Your task to perform on an android device: turn notification dots on Image 0: 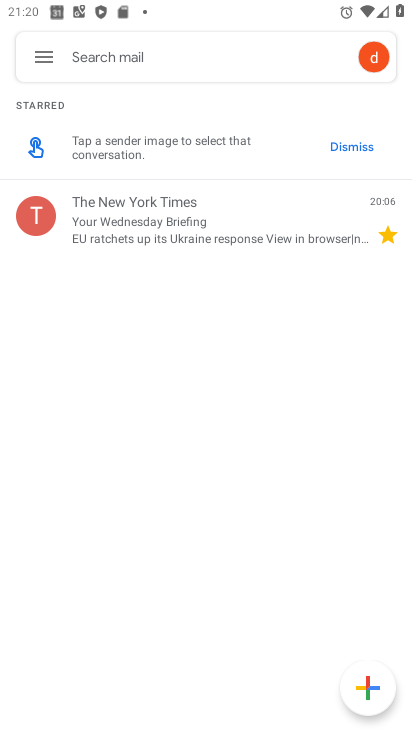
Step 0: press home button
Your task to perform on an android device: turn notification dots on Image 1: 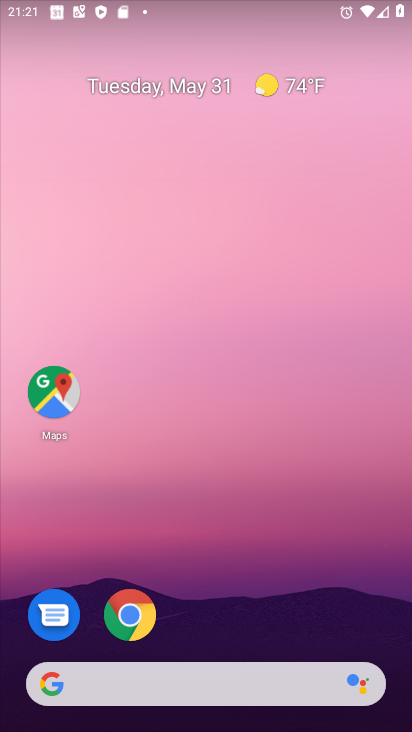
Step 1: drag from (200, 642) to (200, 229)
Your task to perform on an android device: turn notification dots on Image 2: 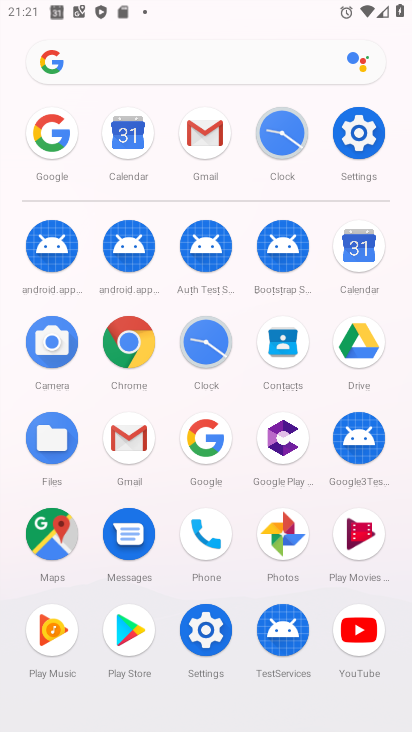
Step 2: click (351, 133)
Your task to perform on an android device: turn notification dots on Image 3: 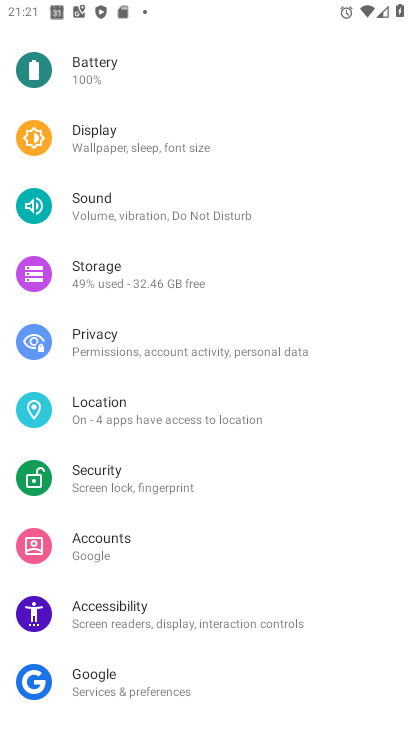
Step 3: drag from (154, 208) to (168, 595)
Your task to perform on an android device: turn notification dots on Image 4: 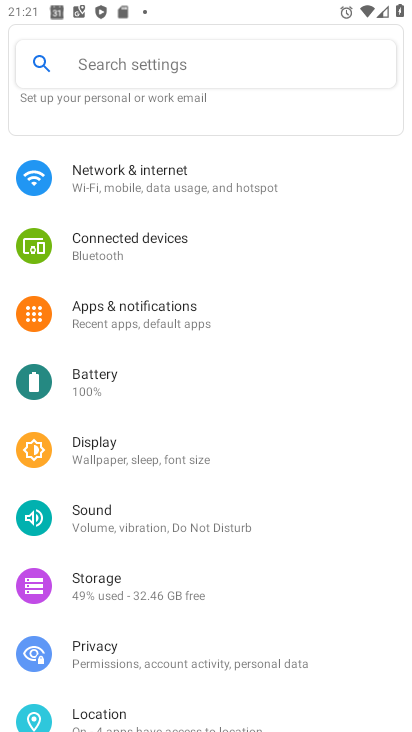
Step 4: drag from (173, 204) to (203, 457)
Your task to perform on an android device: turn notification dots on Image 5: 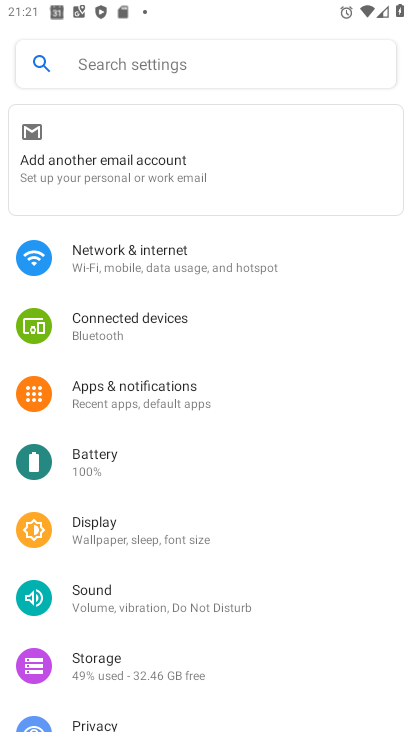
Step 5: click (165, 404)
Your task to perform on an android device: turn notification dots on Image 6: 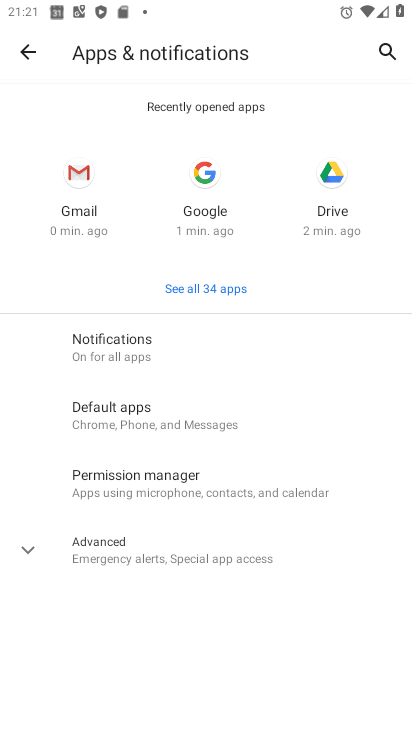
Step 6: click (157, 355)
Your task to perform on an android device: turn notification dots on Image 7: 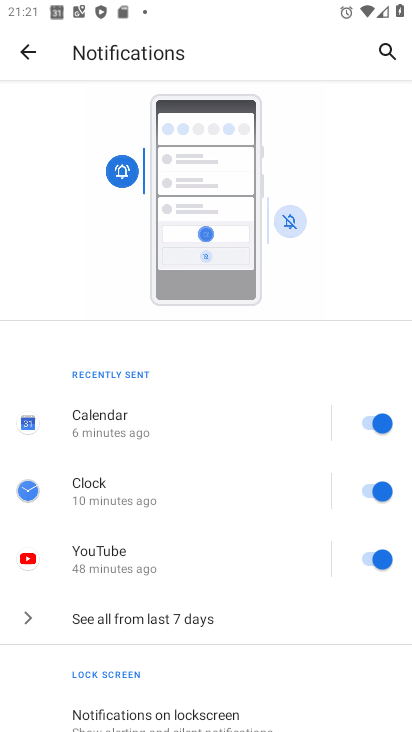
Step 7: drag from (201, 661) to (215, 338)
Your task to perform on an android device: turn notification dots on Image 8: 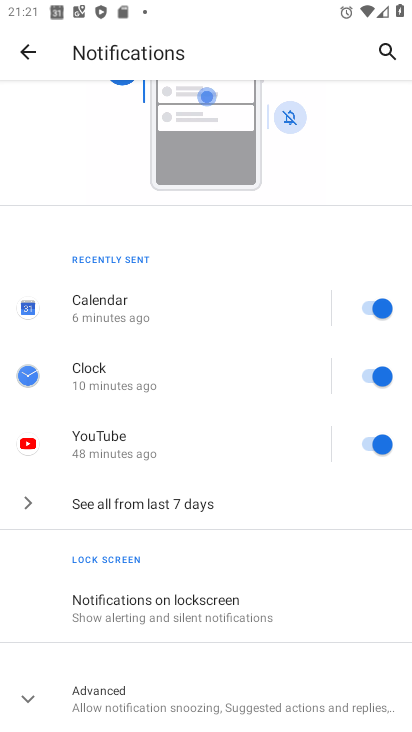
Step 8: click (192, 714)
Your task to perform on an android device: turn notification dots on Image 9: 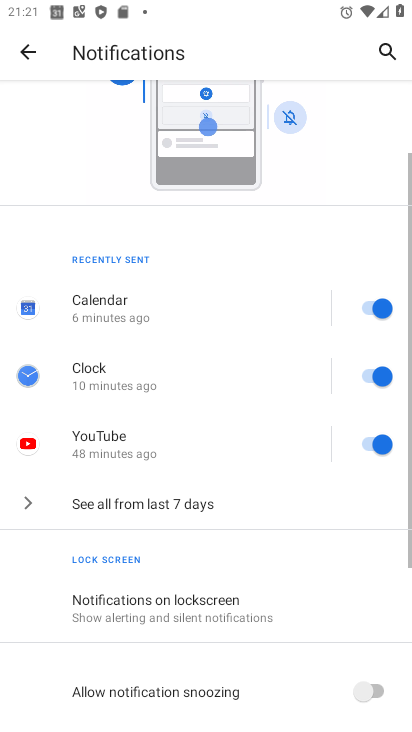
Step 9: drag from (192, 714) to (242, 403)
Your task to perform on an android device: turn notification dots on Image 10: 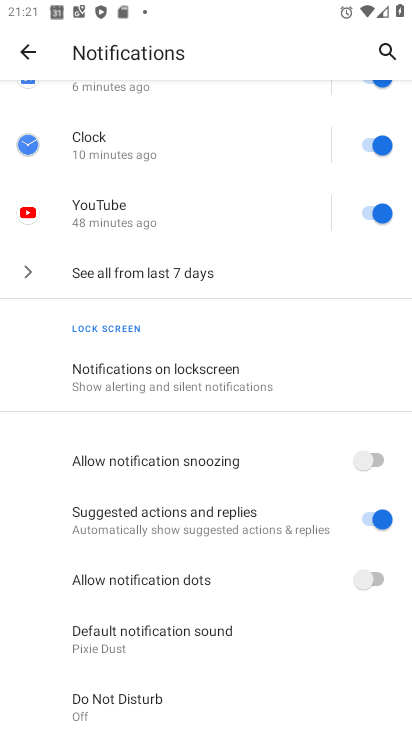
Step 10: click (372, 579)
Your task to perform on an android device: turn notification dots on Image 11: 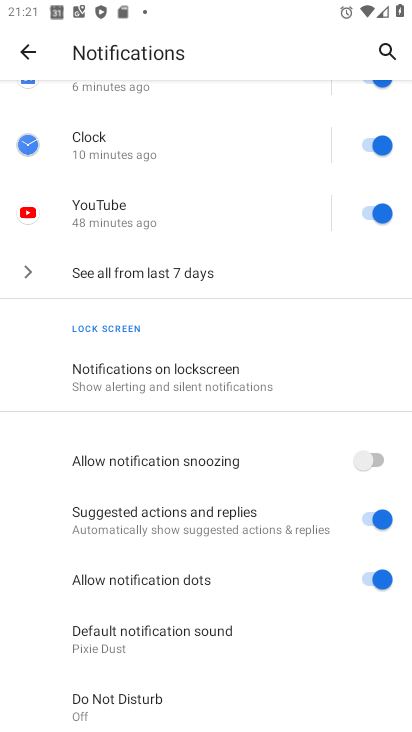
Step 11: task complete